Your task to perform on an android device: change your default location settings in chrome Image 0: 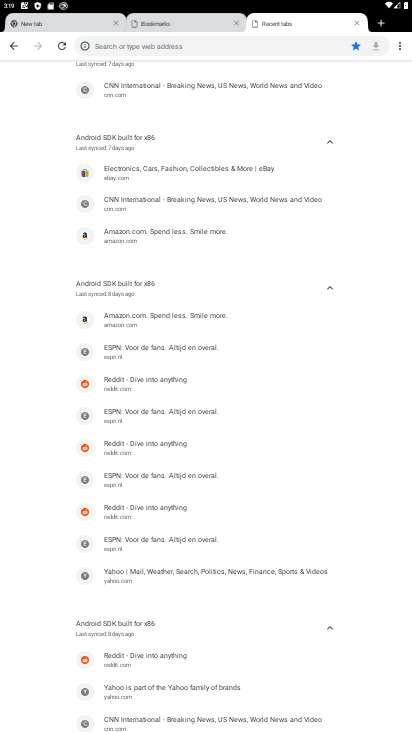
Step 0: click (399, 50)
Your task to perform on an android device: change your default location settings in chrome Image 1: 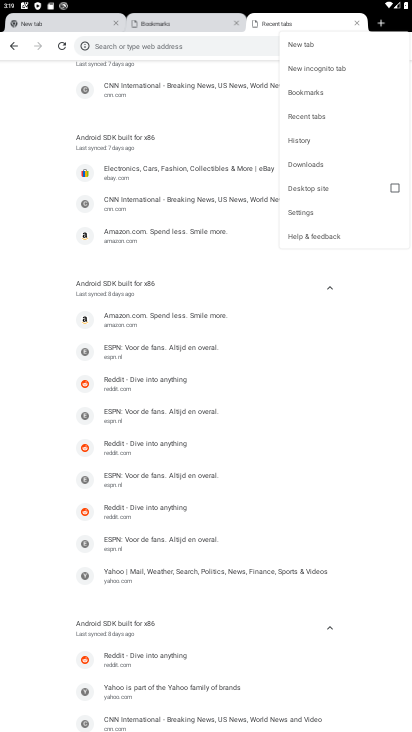
Step 1: click (303, 208)
Your task to perform on an android device: change your default location settings in chrome Image 2: 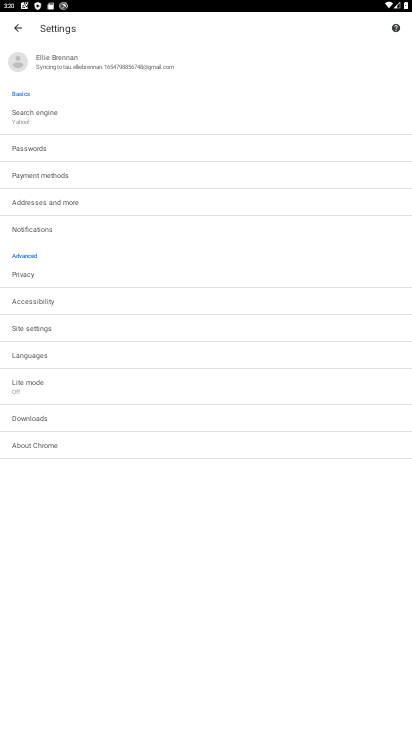
Step 2: click (25, 327)
Your task to perform on an android device: change your default location settings in chrome Image 3: 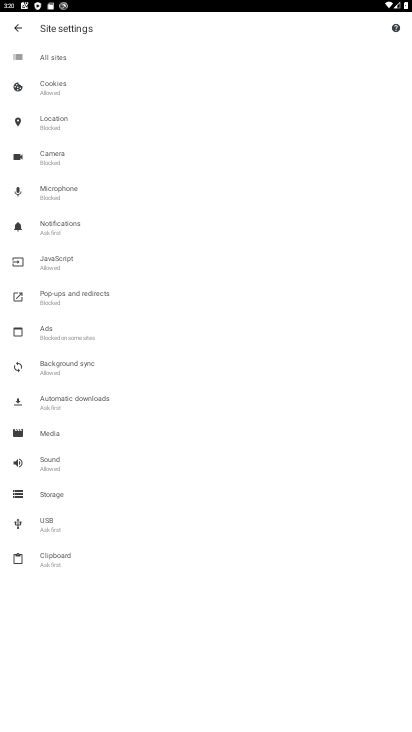
Step 3: click (52, 119)
Your task to perform on an android device: change your default location settings in chrome Image 4: 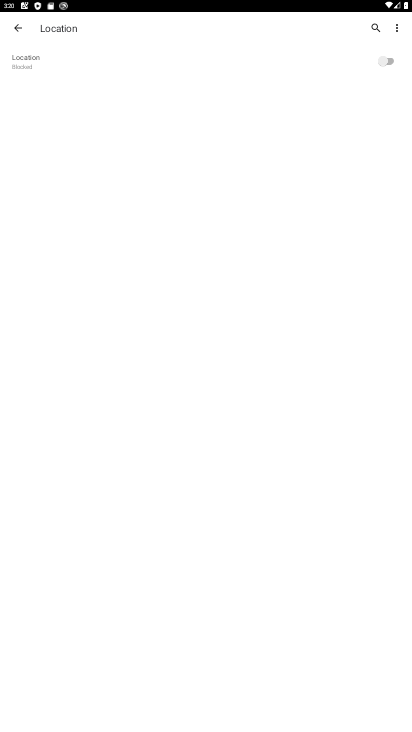
Step 4: click (390, 62)
Your task to perform on an android device: change your default location settings in chrome Image 5: 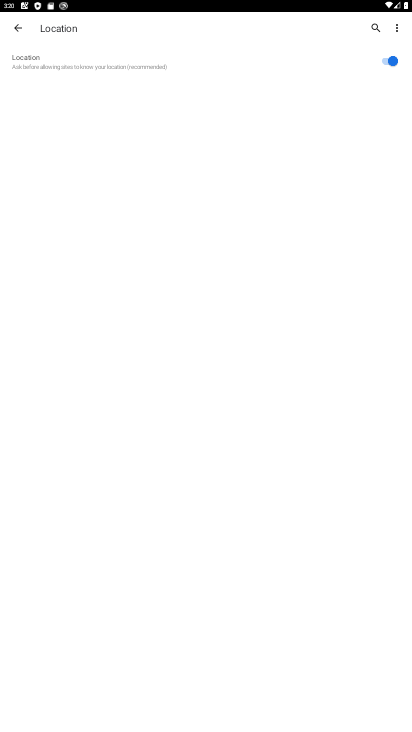
Step 5: task complete